Your task to perform on an android device: move a message to another label in the gmail app Image 0: 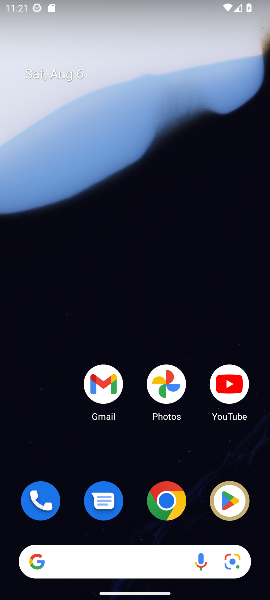
Step 0: click (105, 389)
Your task to perform on an android device: move a message to another label in the gmail app Image 1: 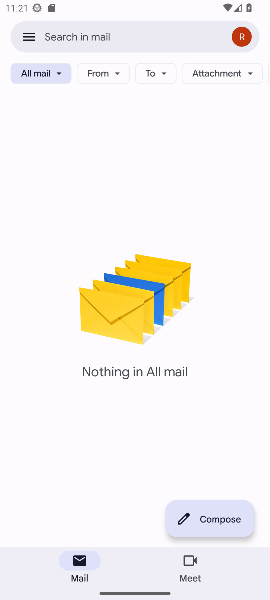
Step 1: task complete